Your task to perform on an android device: Open accessibility settings Image 0: 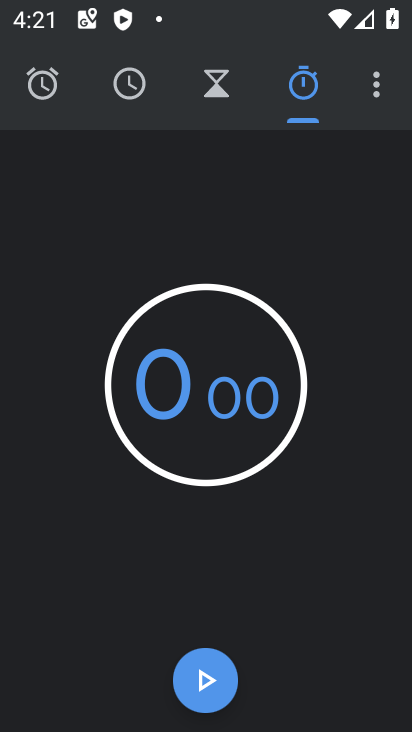
Step 0: press back button
Your task to perform on an android device: Open accessibility settings Image 1: 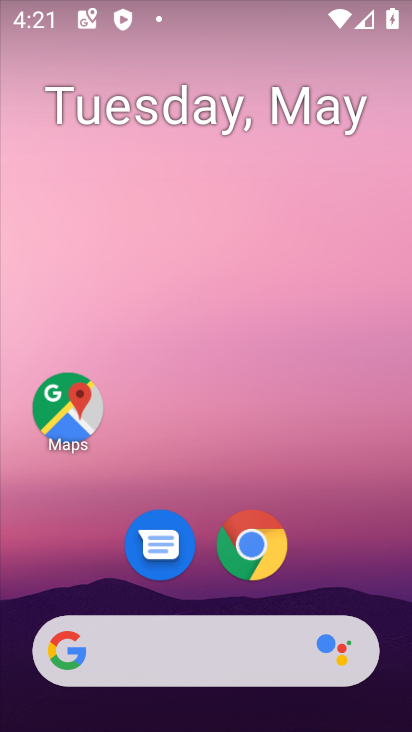
Step 1: drag from (311, 572) to (261, 51)
Your task to perform on an android device: Open accessibility settings Image 2: 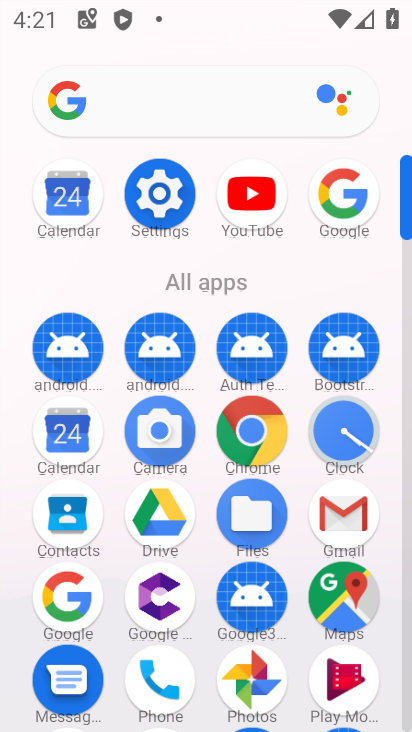
Step 2: click (162, 189)
Your task to perform on an android device: Open accessibility settings Image 3: 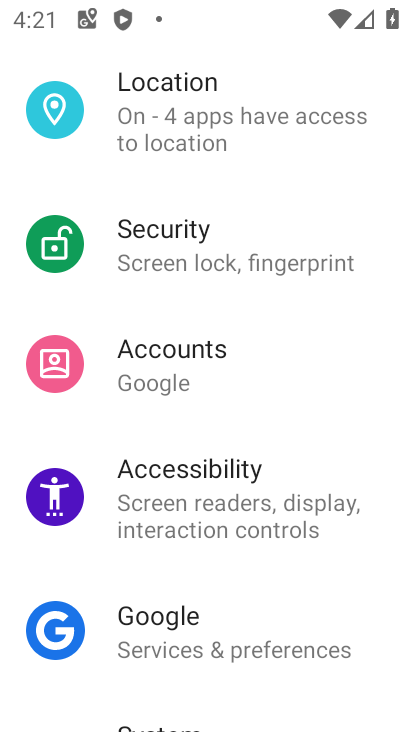
Step 3: drag from (186, 562) to (191, 400)
Your task to perform on an android device: Open accessibility settings Image 4: 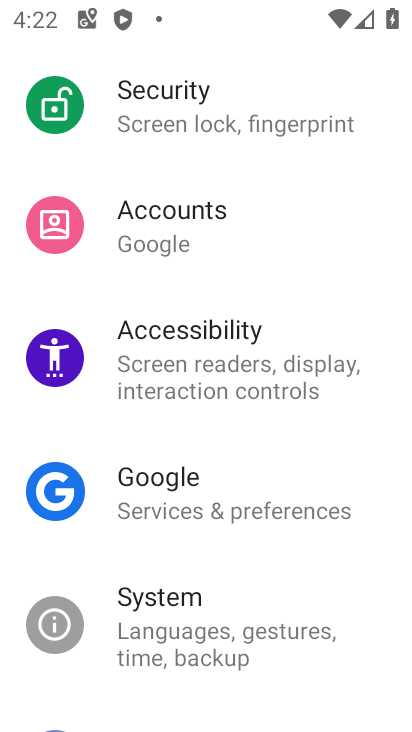
Step 4: click (218, 342)
Your task to perform on an android device: Open accessibility settings Image 5: 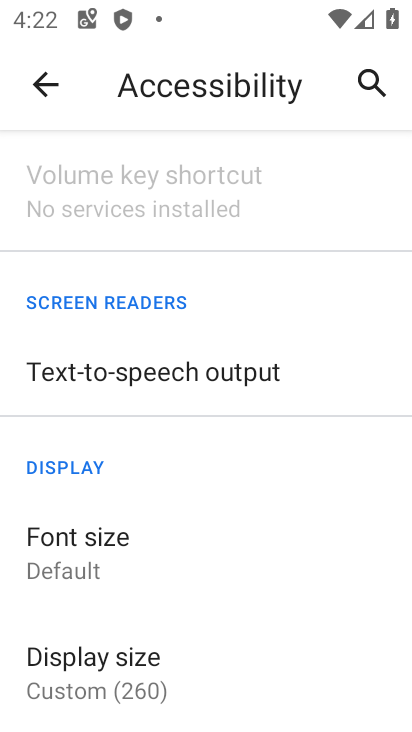
Step 5: task complete